Your task to perform on an android device: turn off location Image 0: 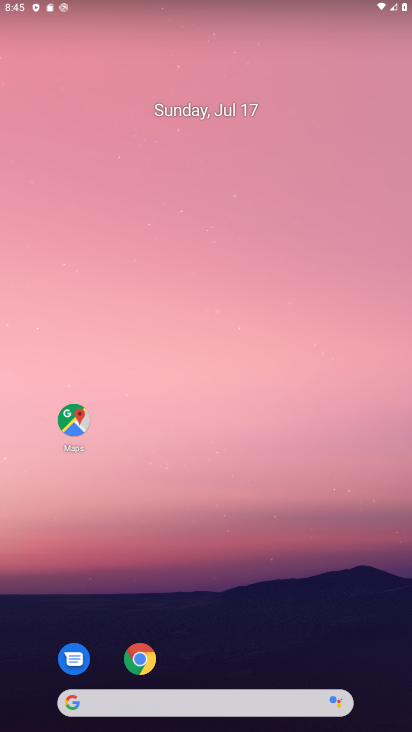
Step 0: press home button
Your task to perform on an android device: turn off location Image 1: 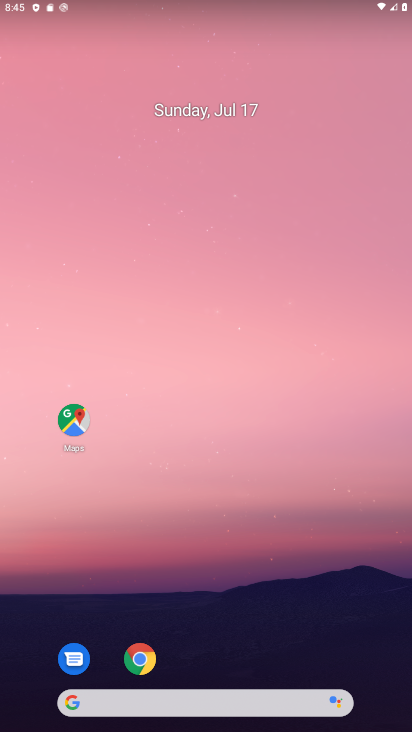
Step 1: drag from (176, 701) to (294, 96)
Your task to perform on an android device: turn off location Image 2: 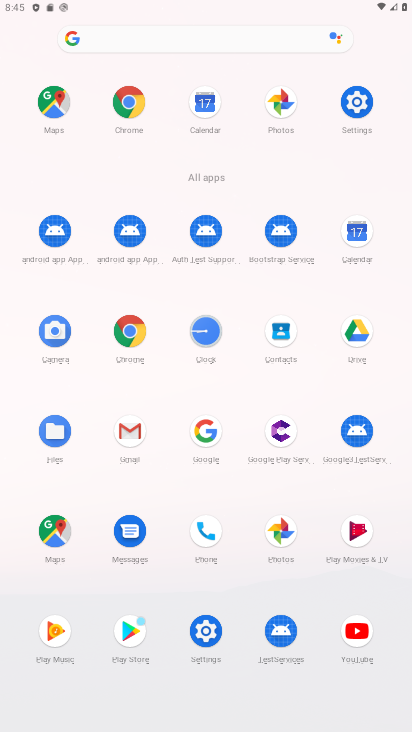
Step 2: click (355, 100)
Your task to perform on an android device: turn off location Image 3: 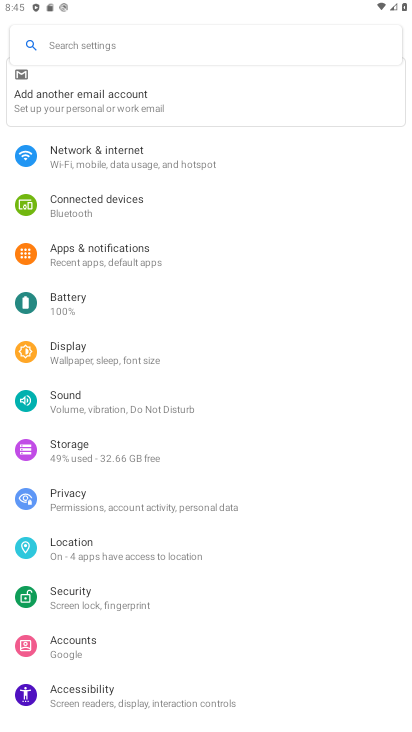
Step 3: click (58, 552)
Your task to perform on an android device: turn off location Image 4: 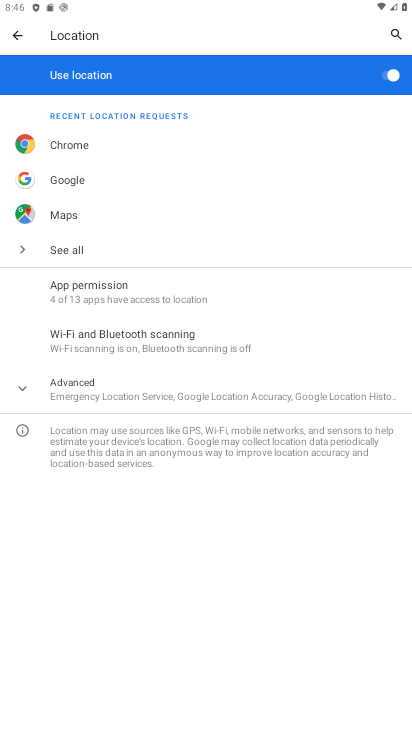
Step 4: click (386, 77)
Your task to perform on an android device: turn off location Image 5: 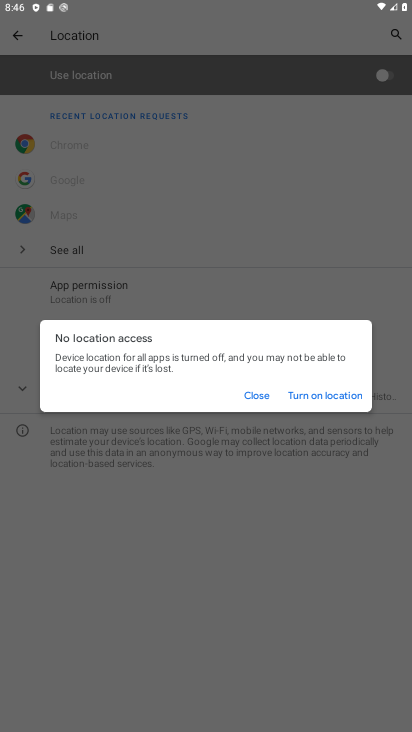
Step 5: click (260, 398)
Your task to perform on an android device: turn off location Image 6: 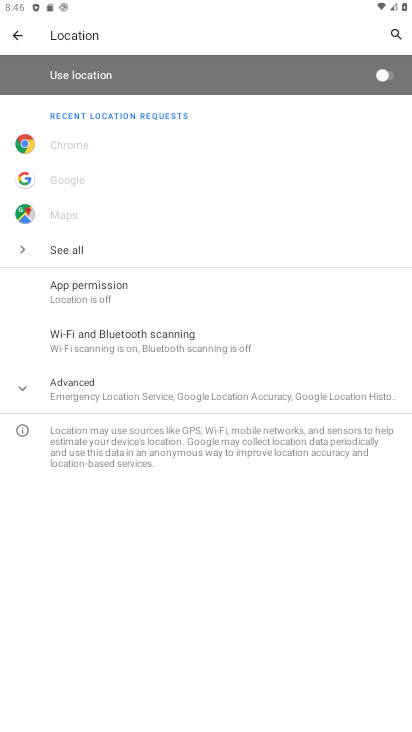
Step 6: task complete